Your task to perform on an android device: star an email in the gmail app Image 0: 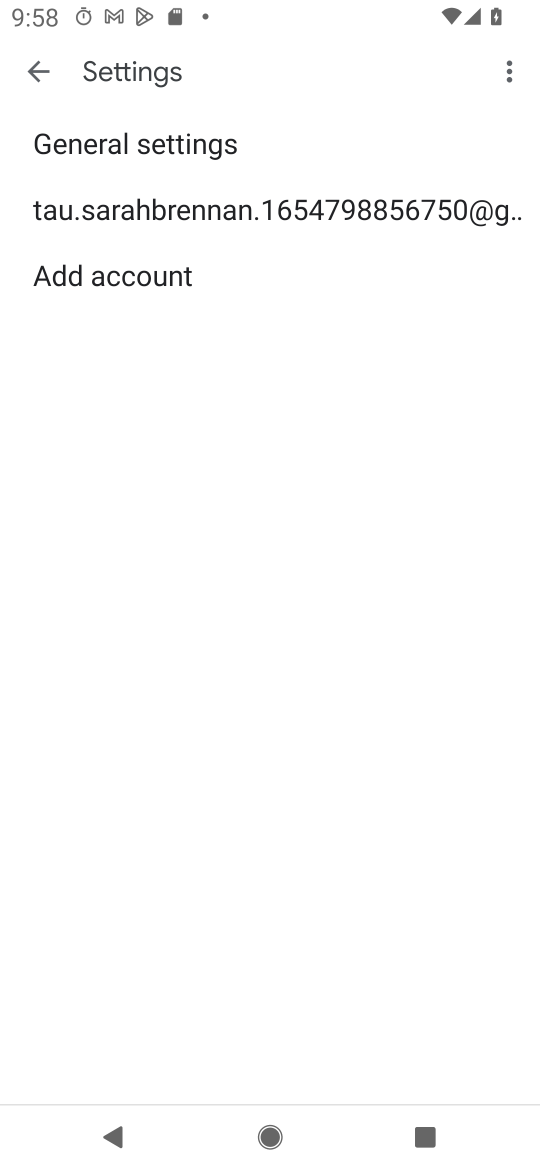
Step 0: press home button
Your task to perform on an android device: star an email in the gmail app Image 1: 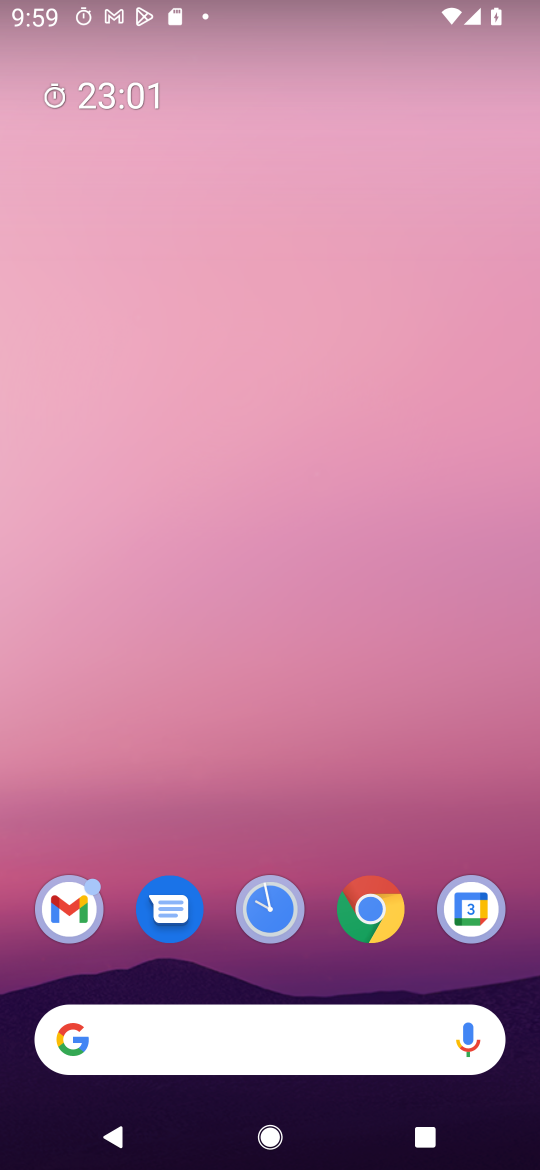
Step 1: drag from (437, 809) to (450, 167)
Your task to perform on an android device: star an email in the gmail app Image 2: 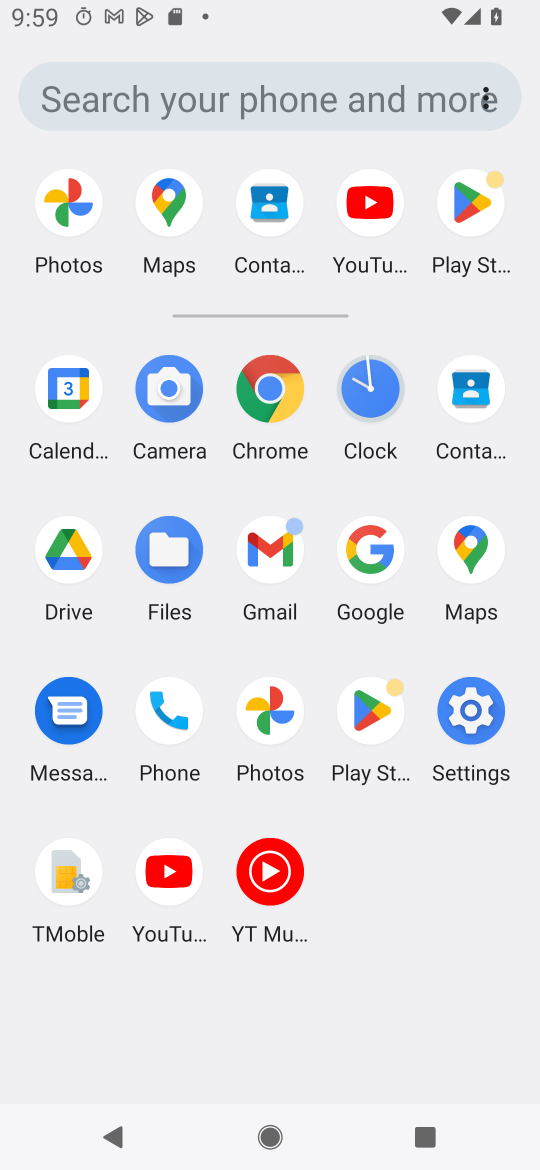
Step 2: click (278, 547)
Your task to perform on an android device: star an email in the gmail app Image 3: 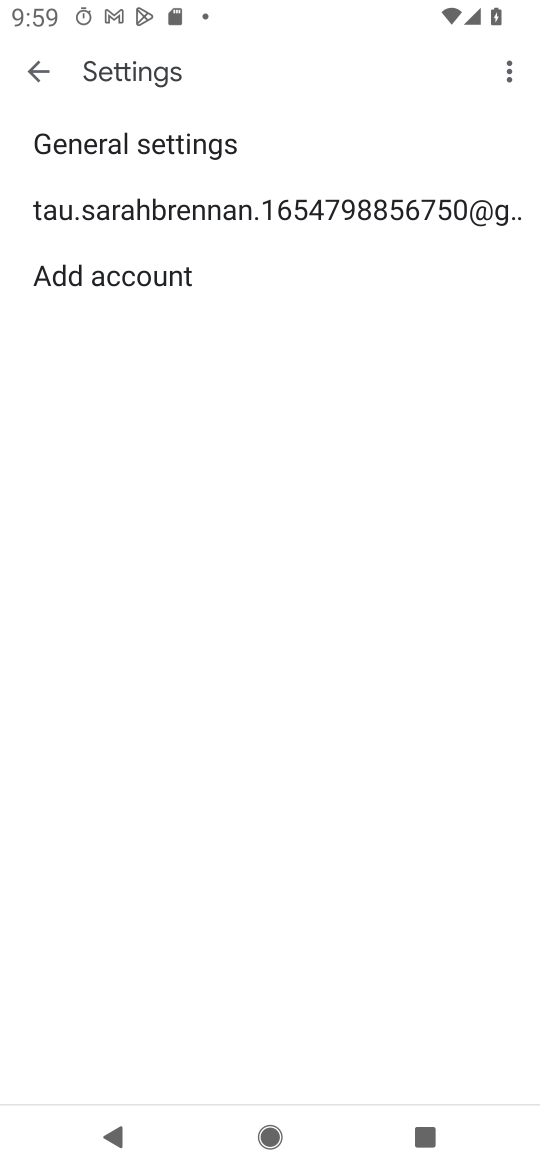
Step 3: press back button
Your task to perform on an android device: star an email in the gmail app Image 4: 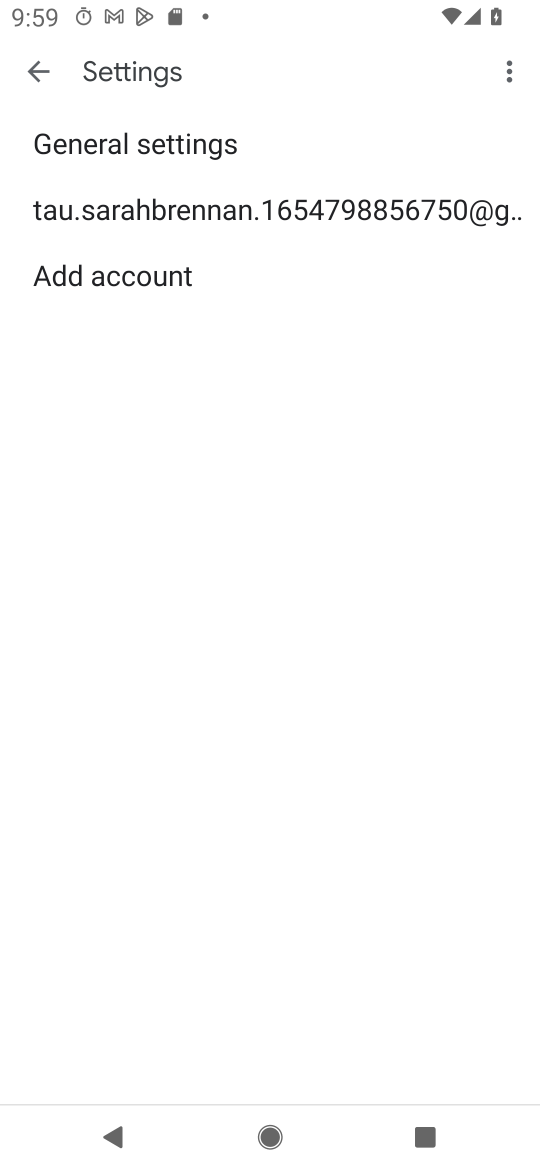
Step 4: press back button
Your task to perform on an android device: star an email in the gmail app Image 5: 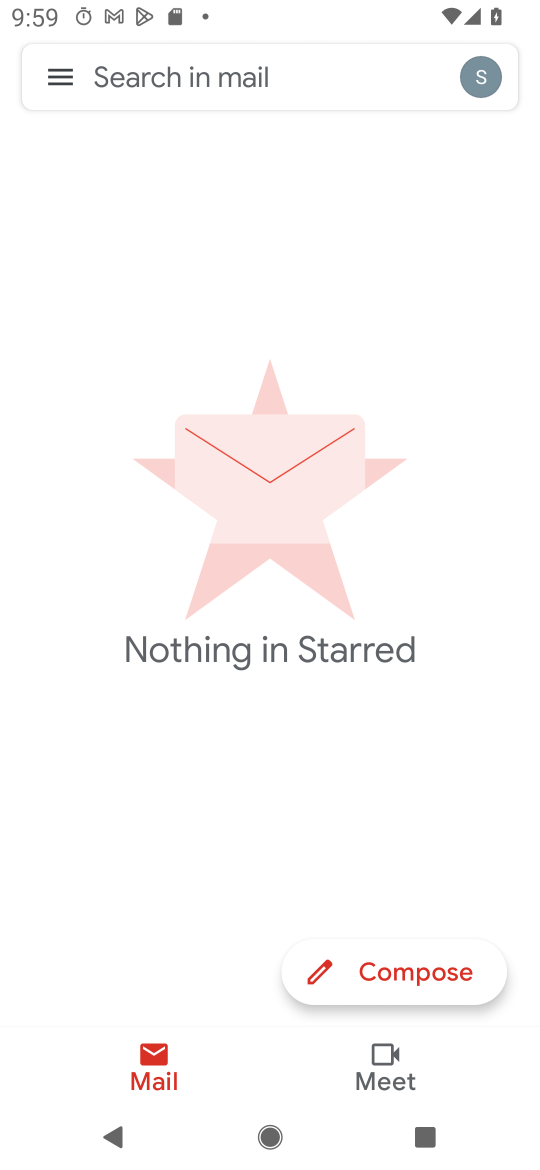
Step 5: click (38, 76)
Your task to perform on an android device: star an email in the gmail app Image 6: 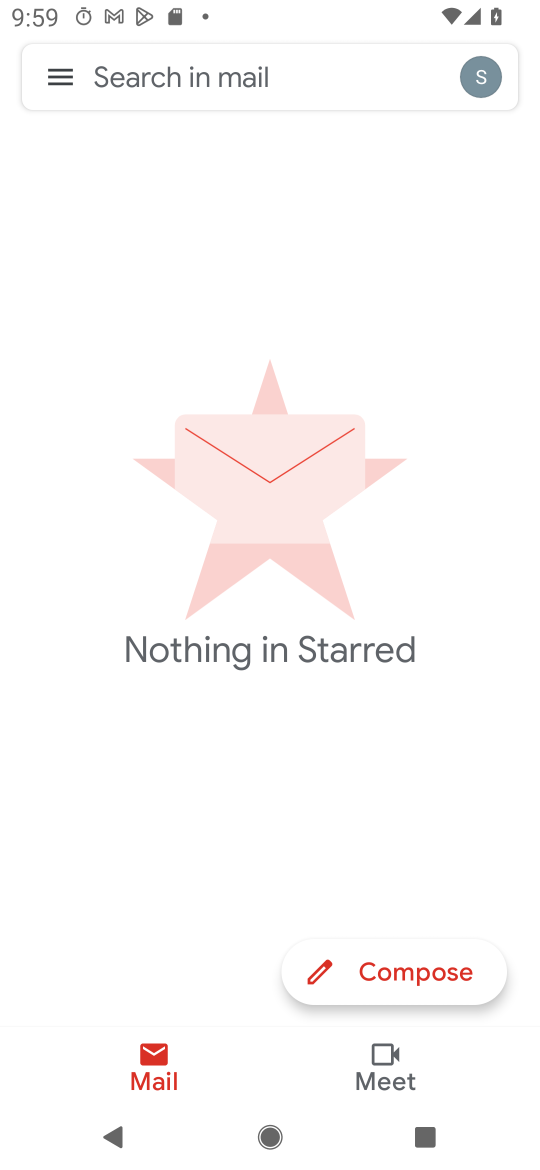
Step 6: click (70, 72)
Your task to perform on an android device: star an email in the gmail app Image 7: 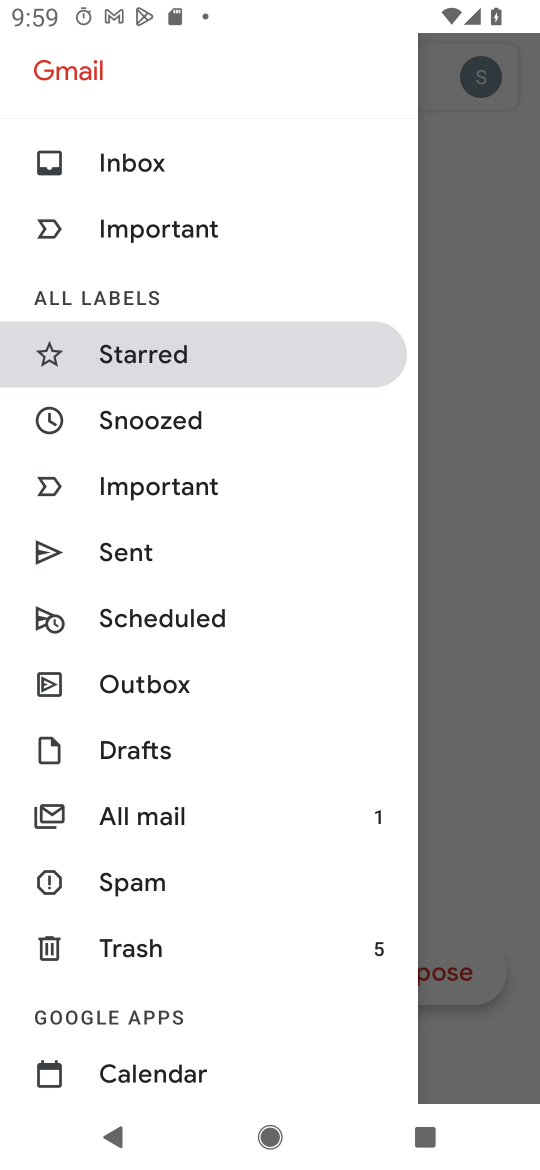
Step 7: click (155, 169)
Your task to perform on an android device: star an email in the gmail app Image 8: 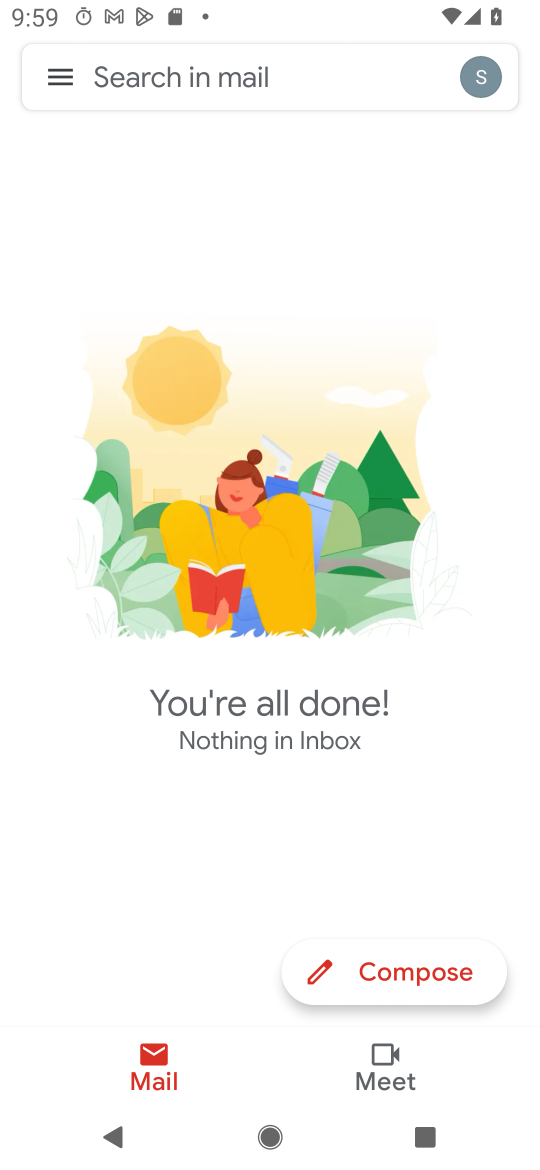
Step 8: task complete